Your task to perform on an android device: toggle translation in the chrome app Image 0: 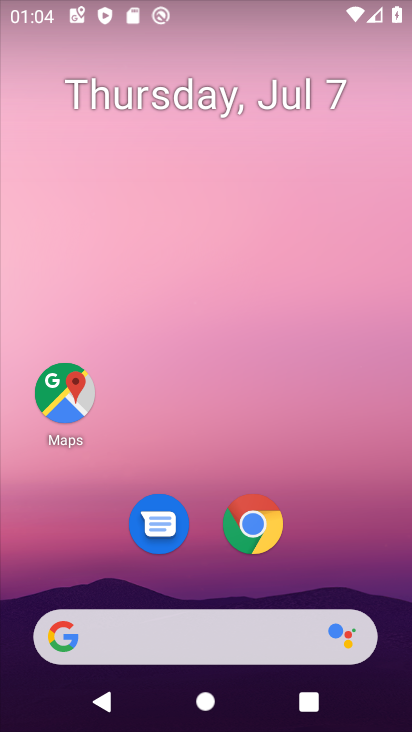
Step 0: drag from (203, 464) to (263, 5)
Your task to perform on an android device: toggle translation in the chrome app Image 1: 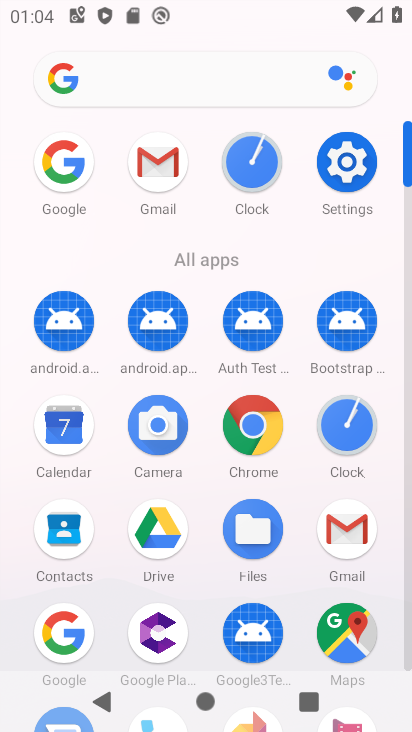
Step 1: click (263, 433)
Your task to perform on an android device: toggle translation in the chrome app Image 2: 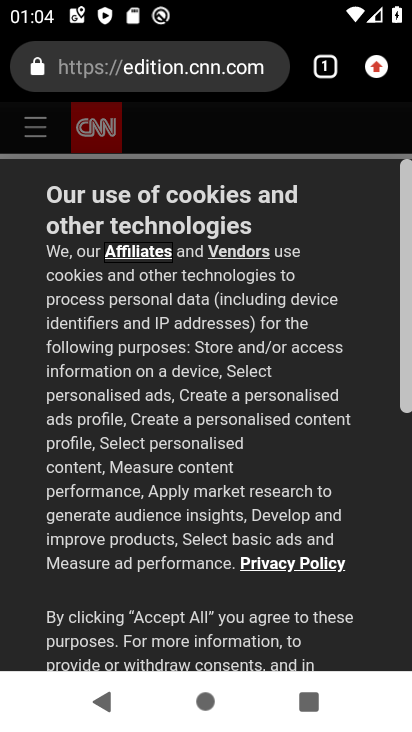
Step 2: click (383, 63)
Your task to perform on an android device: toggle translation in the chrome app Image 3: 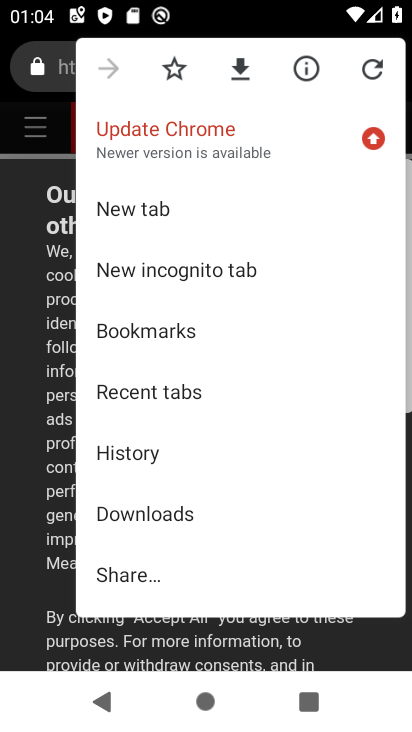
Step 3: drag from (184, 538) to (242, 191)
Your task to perform on an android device: toggle translation in the chrome app Image 4: 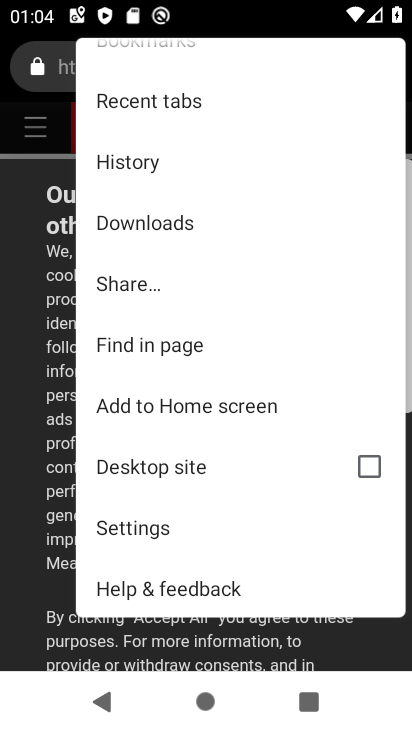
Step 4: click (152, 528)
Your task to perform on an android device: toggle translation in the chrome app Image 5: 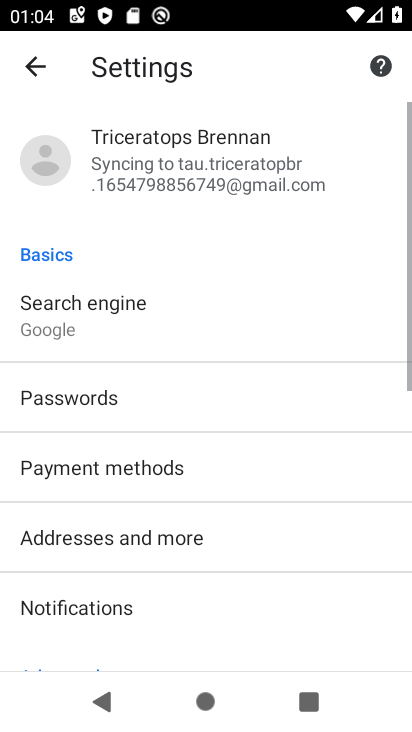
Step 5: drag from (266, 545) to (300, 159)
Your task to perform on an android device: toggle translation in the chrome app Image 6: 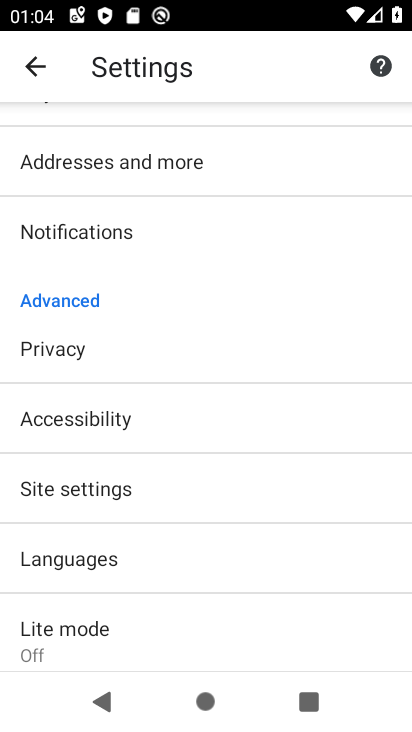
Step 6: click (222, 559)
Your task to perform on an android device: toggle translation in the chrome app Image 7: 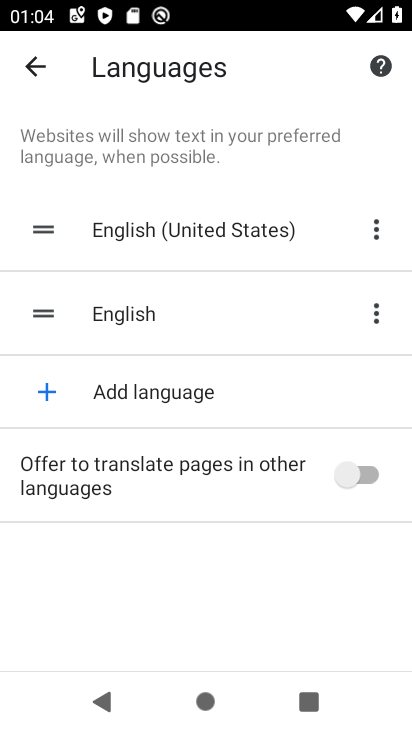
Step 7: click (355, 471)
Your task to perform on an android device: toggle translation in the chrome app Image 8: 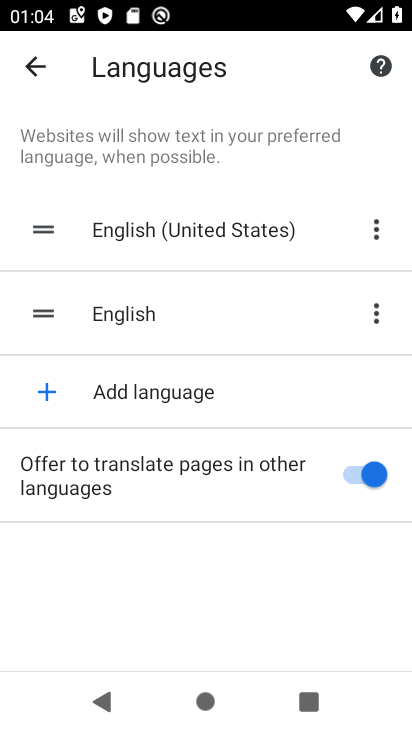
Step 8: task complete